Your task to perform on an android device: Go to wifi settings Image 0: 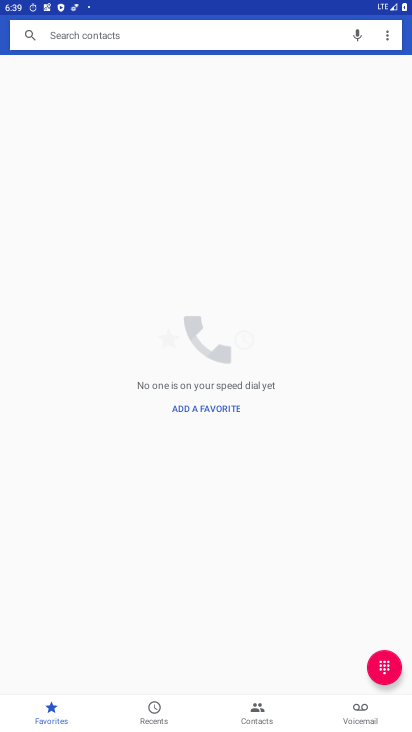
Step 0: press home button
Your task to perform on an android device: Go to wifi settings Image 1: 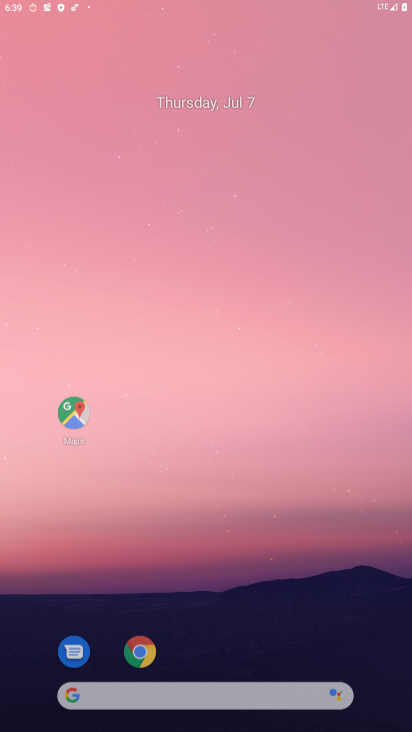
Step 1: drag from (335, 692) to (263, 1)
Your task to perform on an android device: Go to wifi settings Image 2: 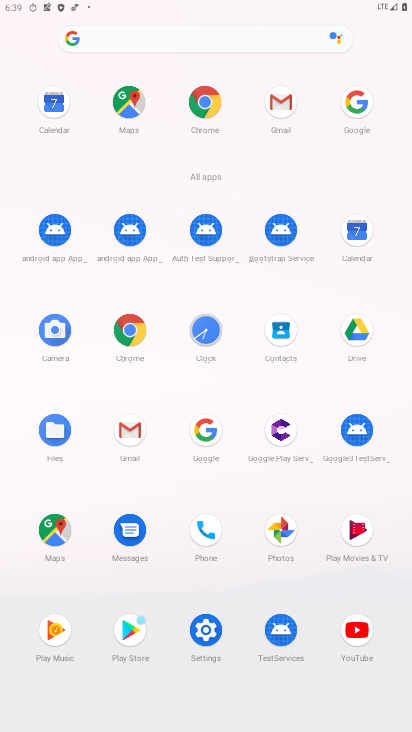
Step 2: click (212, 609)
Your task to perform on an android device: Go to wifi settings Image 3: 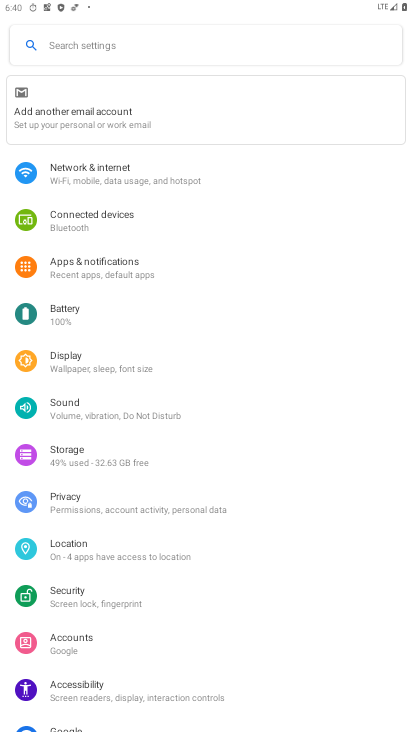
Step 3: click (163, 185)
Your task to perform on an android device: Go to wifi settings Image 4: 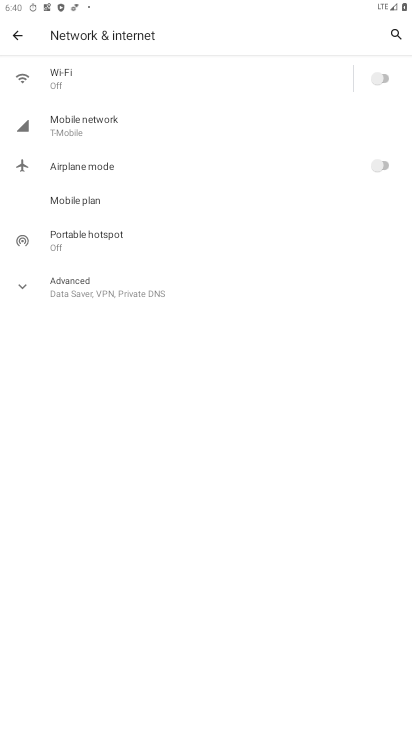
Step 4: click (179, 79)
Your task to perform on an android device: Go to wifi settings Image 5: 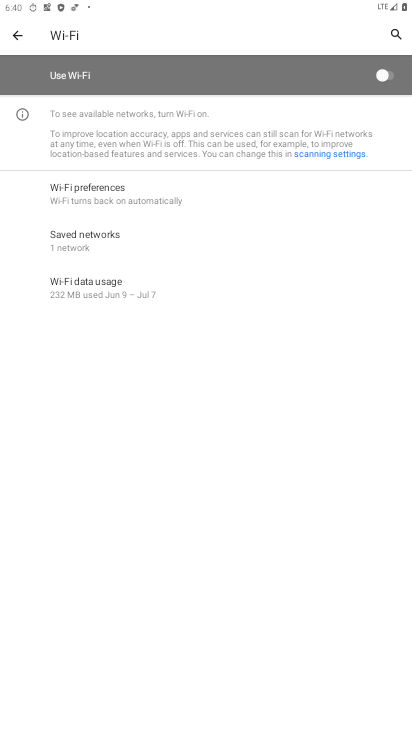
Step 5: task complete